Your task to perform on an android device: change notification settings in the gmail app Image 0: 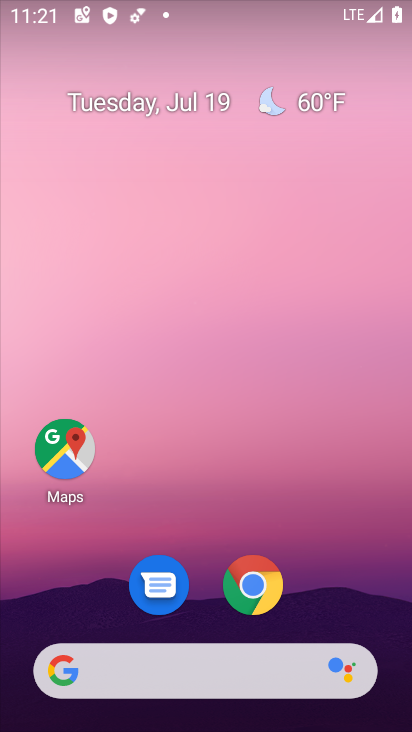
Step 0: drag from (205, 510) to (190, 3)
Your task to perform on an android device: change notification settings in the gmail app Image 1: 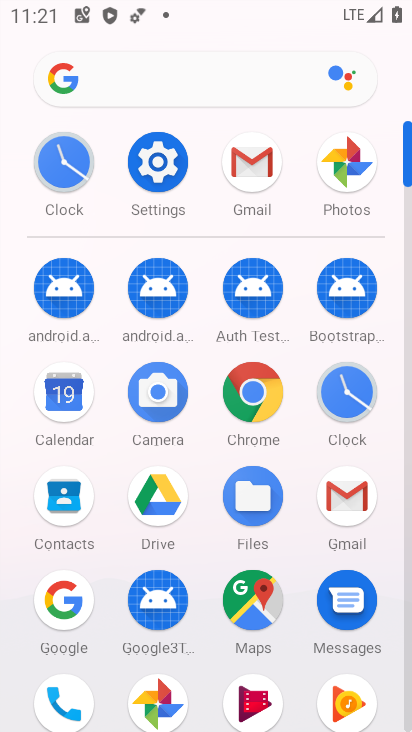
Step 1: click (256, 161)
Your task to perform on an android device: change notification settings in the gmail app Image 2: 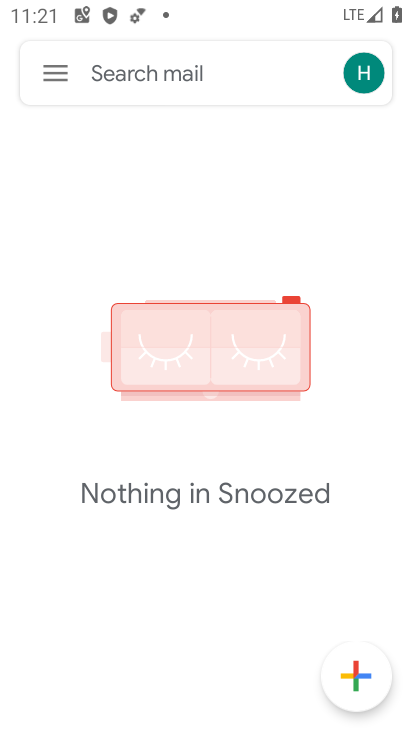
Step 2: click (61, 72)
Your task to perform on an android device: change notification settings in the gmail app Image 3: 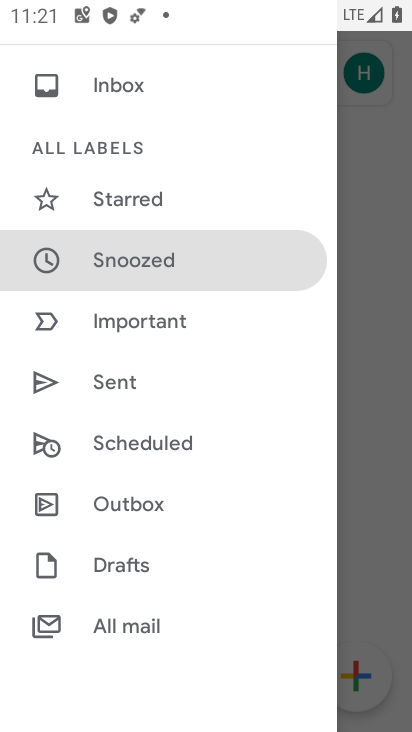
Step 3: drag from (178, 533) to (195, 83)
Your task to perform on an android device: change notification settings in the gmail app Image 4: 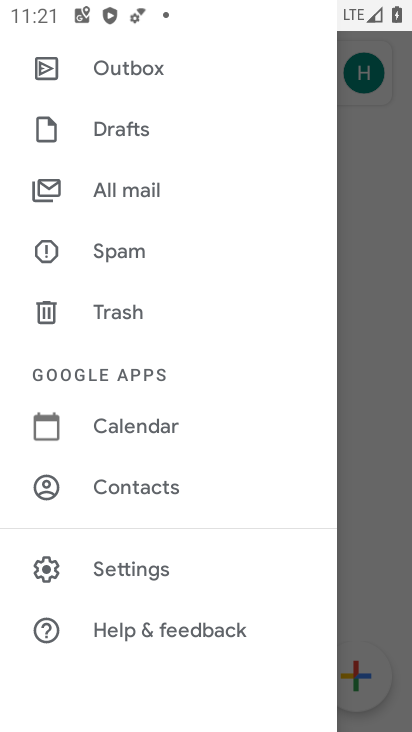
Step 4: click (160, 566)
Your task to perform on an android device: change notification settings in the gmail app Image 5: 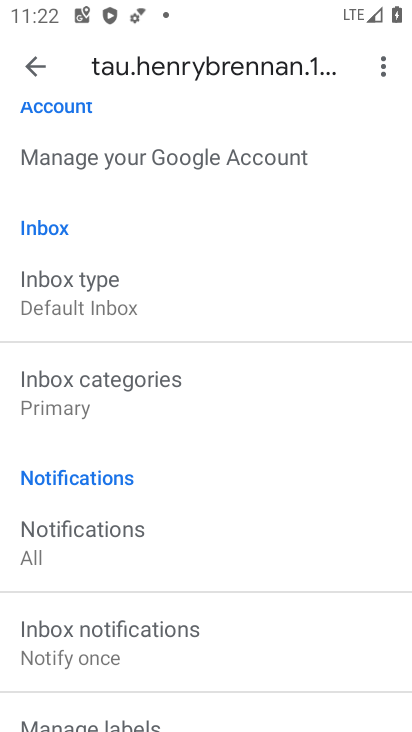
Step 5: drag from (244, 517) to (240, 149)
Your task to perform on an android device: change notification settings in the gmail app Image 6: 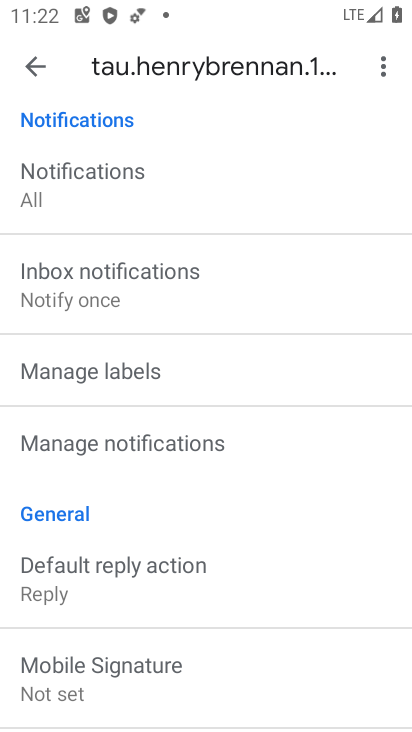
Step 6: click (223, 440)
Your task to perform on an android device: change notification settings in the gmail app Image 7: 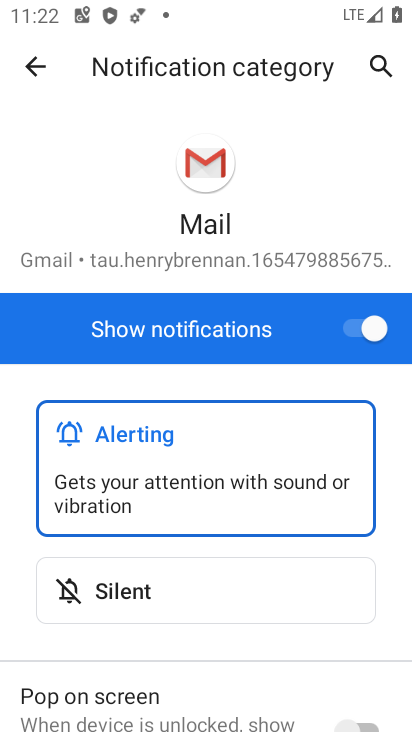
Step 7: click (354, 322)
Your task to perform on an android device: change notification settings in the gmail app Image 8: 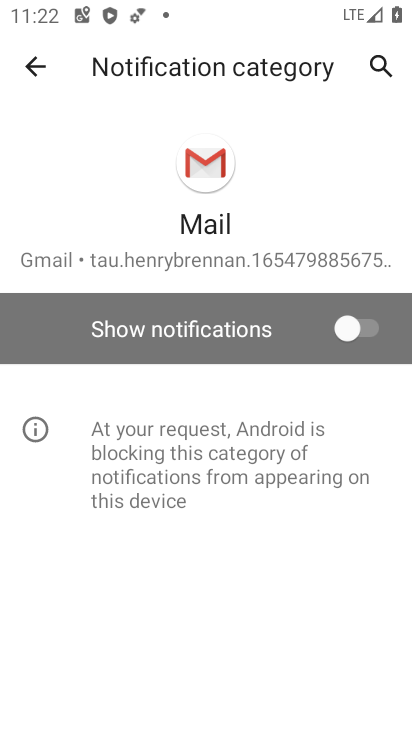
Step 8: task complete